Your task to perform on an android device: Go to accessibility settings Image 0: 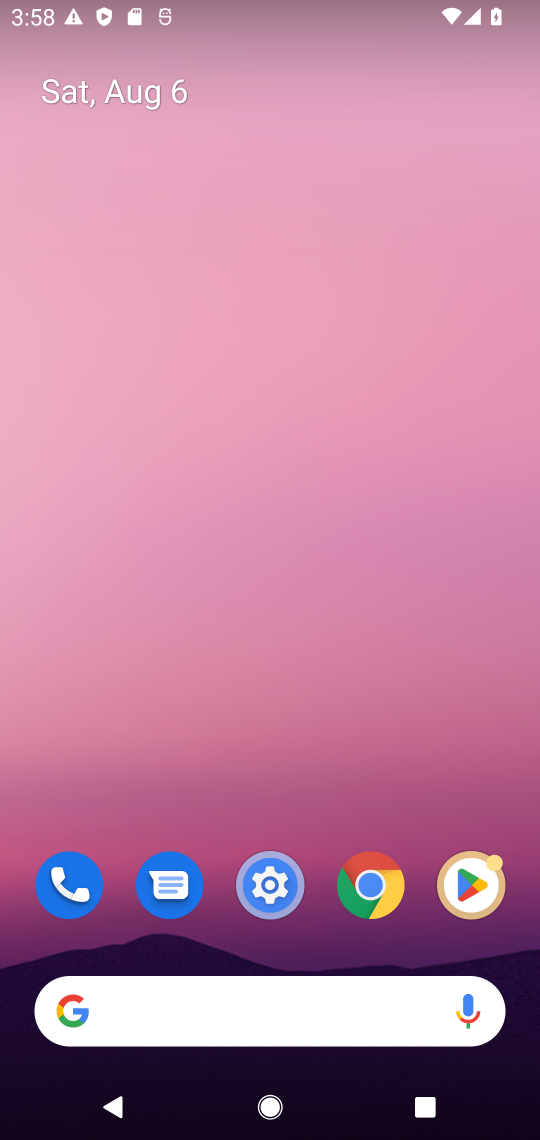
Step 0: click (279, 889)
Your task to perform on an android device: Go to accessibility settings Image 1: 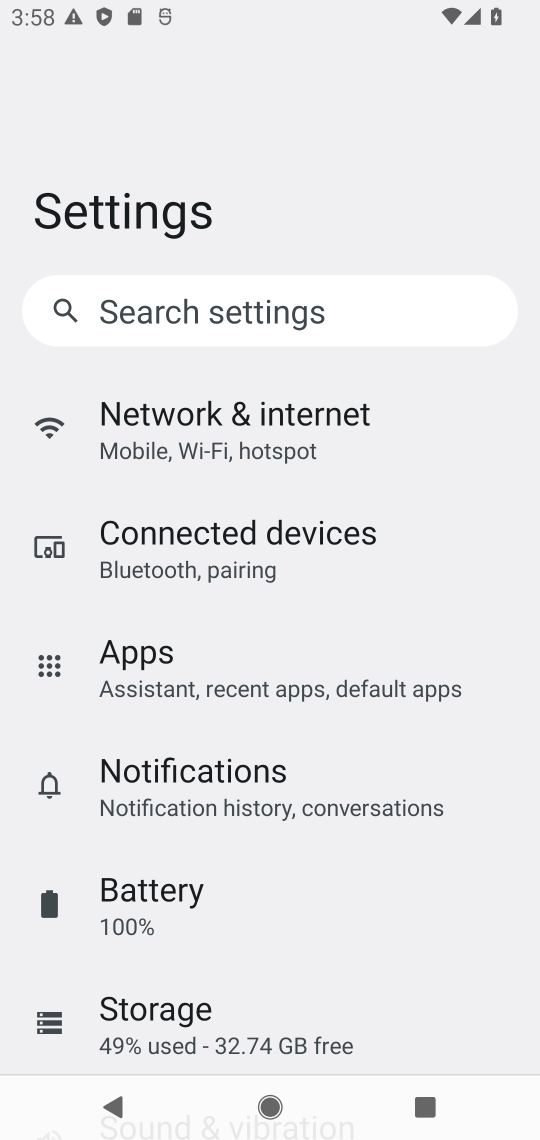
Step 1: drag from (226, 927) to (202, 200)
Your task to perform on an android device: Go to accessibility settings Image 2: 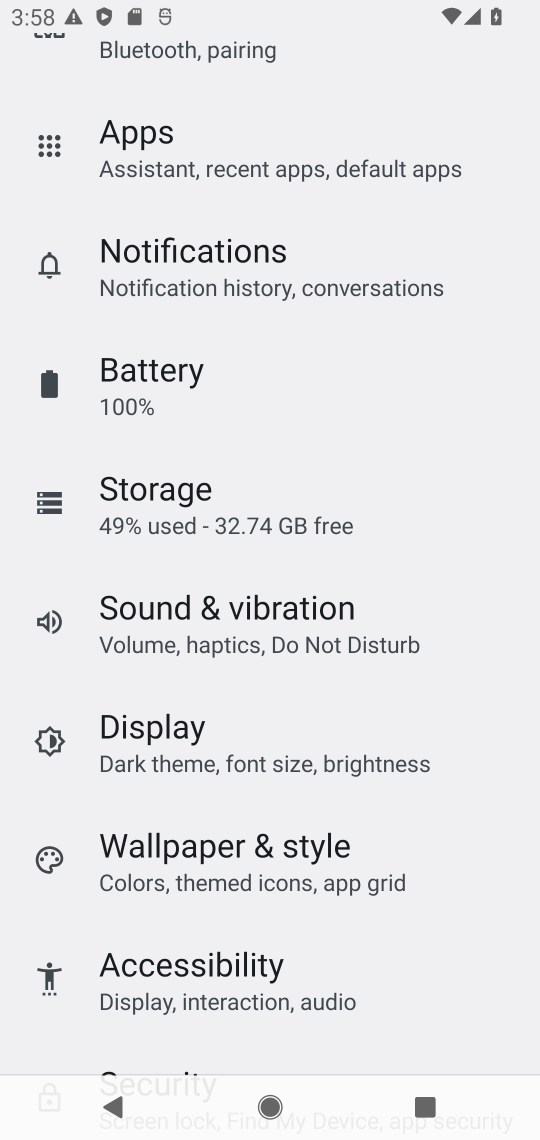
Step 2: click (181, 987)
Your task to perform on an android device: Go to accessibility settings Image 3: 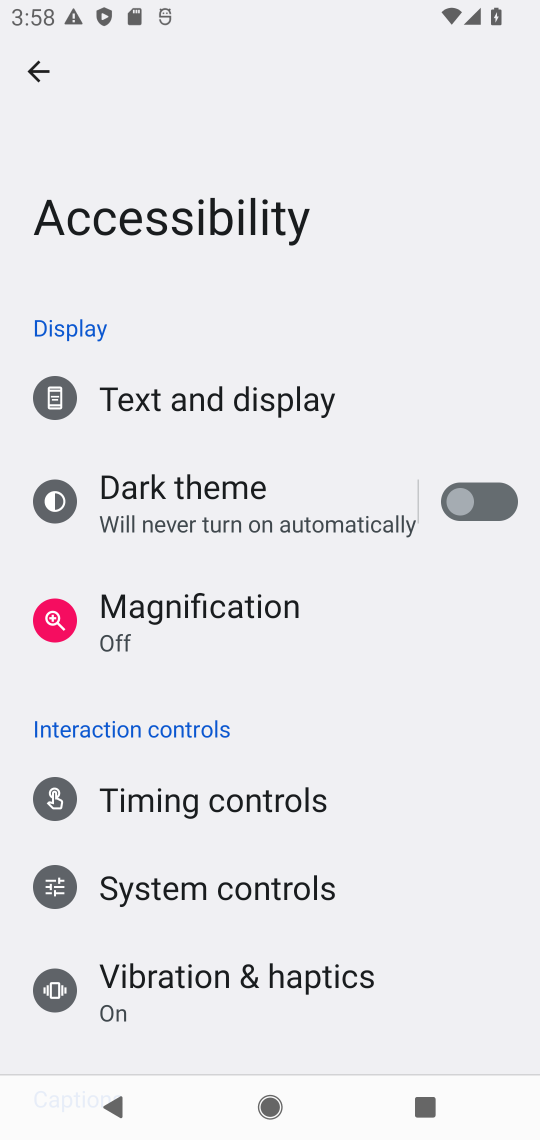
Step 3: task complete